Your task to perform on an android device: check android version Image 0: 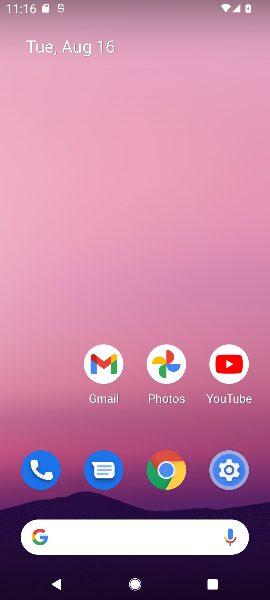
Step 0: click (228, 471)
Your task to perform on an android device: check android version Image 1: 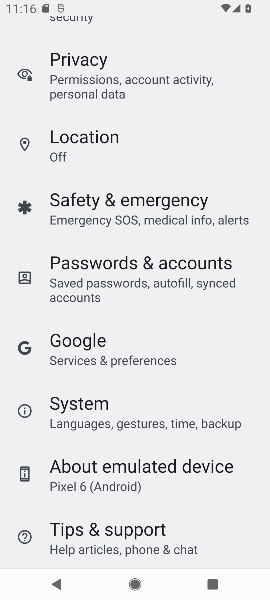
Step 1: drag from (172, 456) to (96, 115)
Your task to perform on an android device: check android version Image 2: 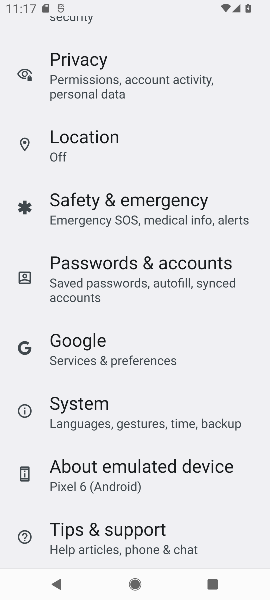
Step 2: click (158, 465)
Your task to perform on an android device: check android version Image 3: 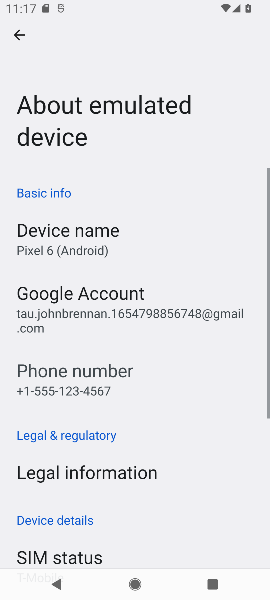
Step 3: task complete